Your task to perform on an android device: Check the weather Image 0: 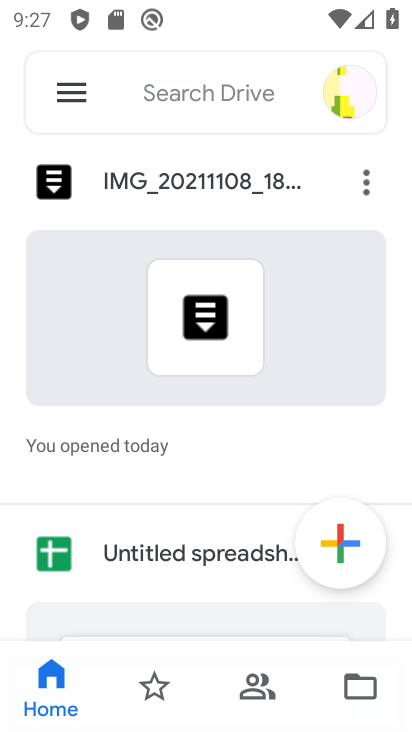
Step 0: press home button
Your task to perform on an android device: Check the weather Image 1: 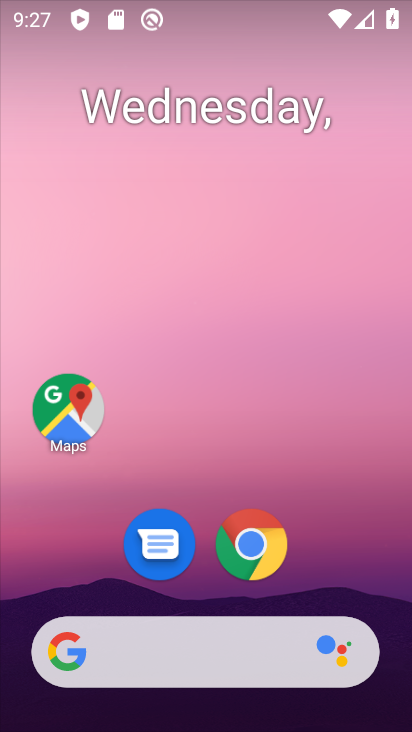
Step 1: drag from (351, 549) to (293, 99)
Your task to perform on an android device: Check the weather Image 2: 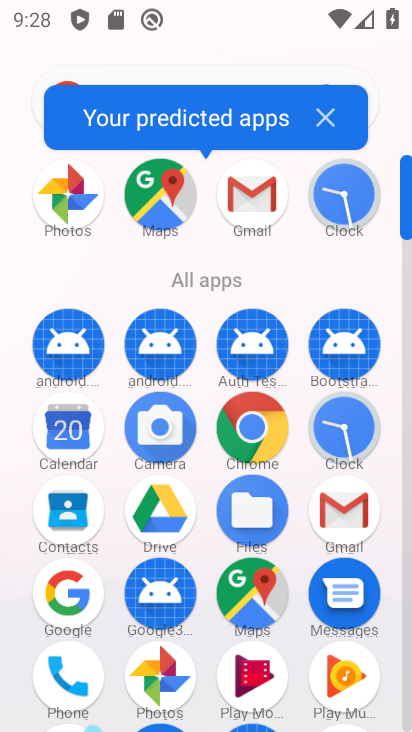
Step 2: drag from (299, 237) to (262, 725)
Your task to perform on an android device: Check the weather Image 3: 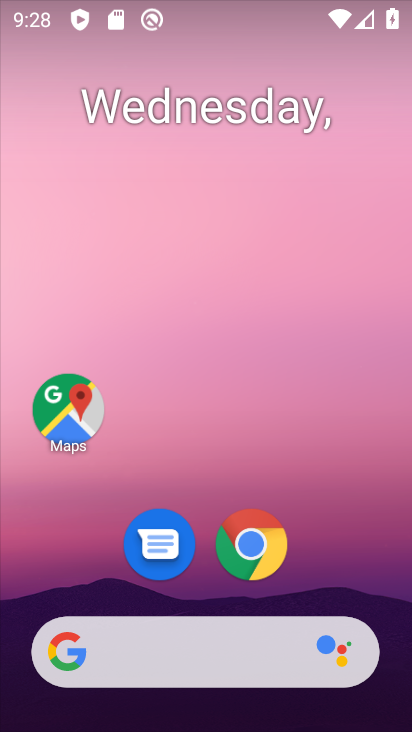
Step 3: drag from (32, 187) to (406, 219)
Your task to perform on an android device: Check the weather Image 4: 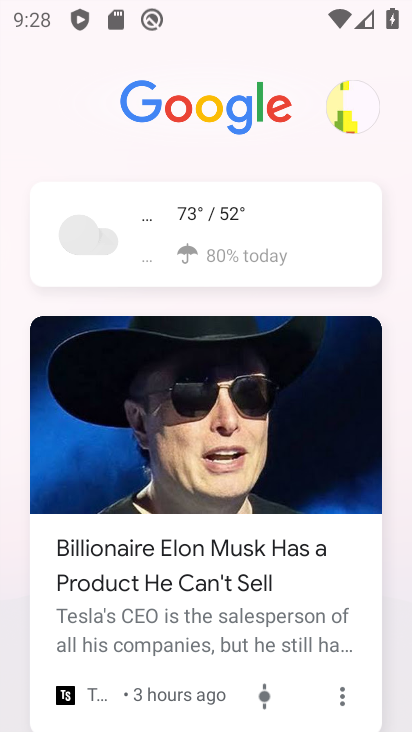
Step 4: click (223, 223)
Your task to perform on an android device: Check the weather Image 5: 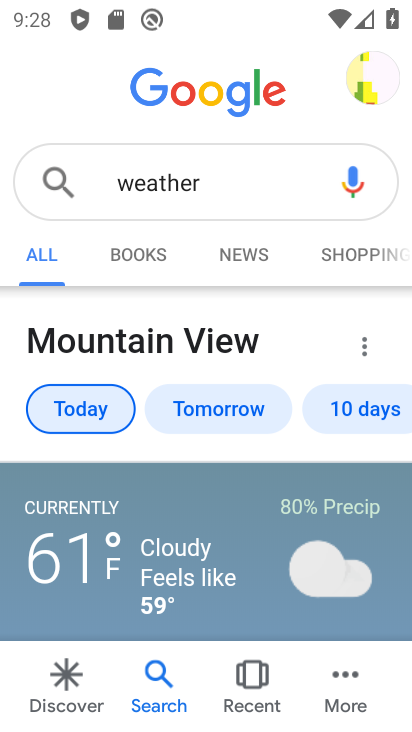
Step 5: task complete